Your task to perform on an android device: set default search engine in the chrome app Image 0: 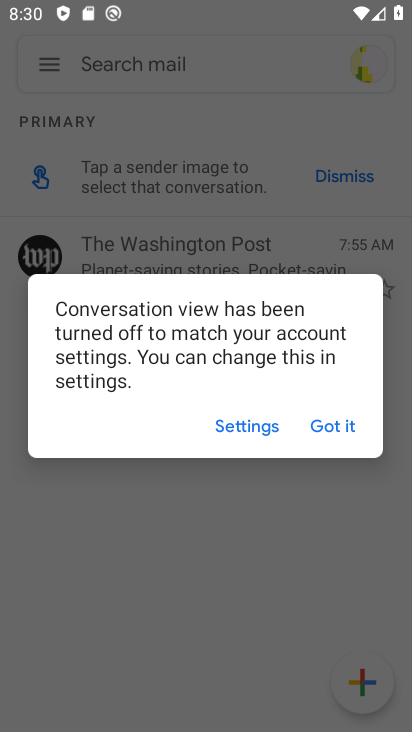
Step 0: press home button
Your task to perform on an android device: set default search engine in the chrome app Image 1: 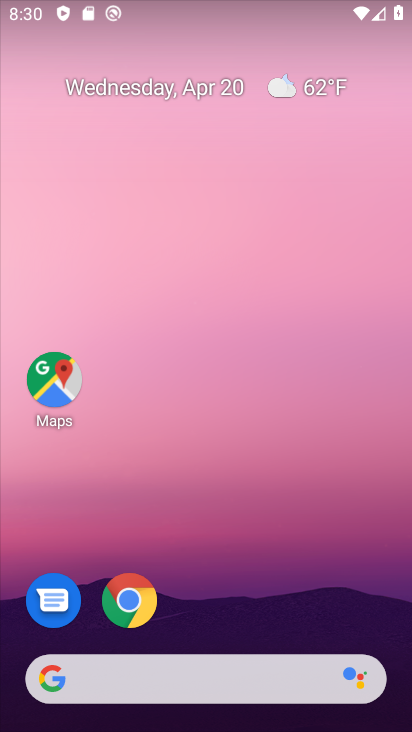
Step 1: click (125, 597)
Your task to perform on an android device: set default search engine in the chrome app Image 2: 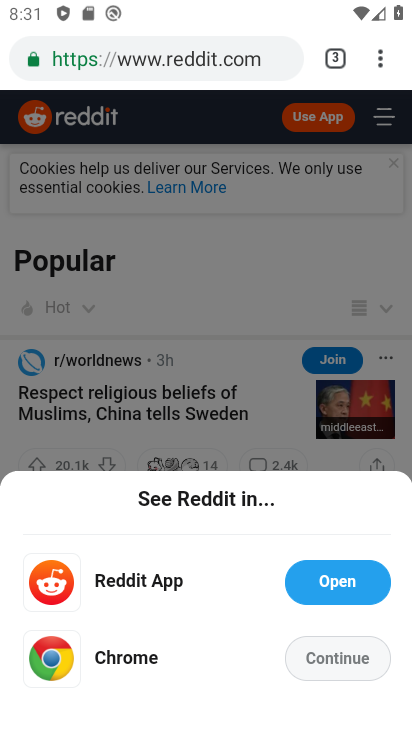
Step 2: click (382, 59)
Your task to perform on an android device: set default search engine in the chrome app Image 3: 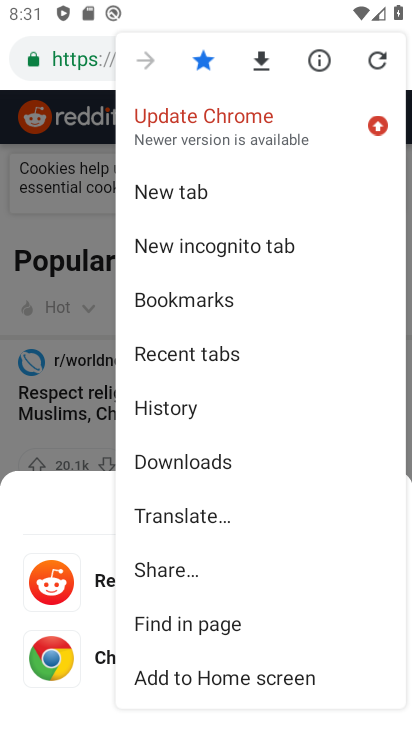
Step 3: drag from (203, 645) to (174, 275)
Your task to perform on an android device: set default search engine in the chrome app Image 4: 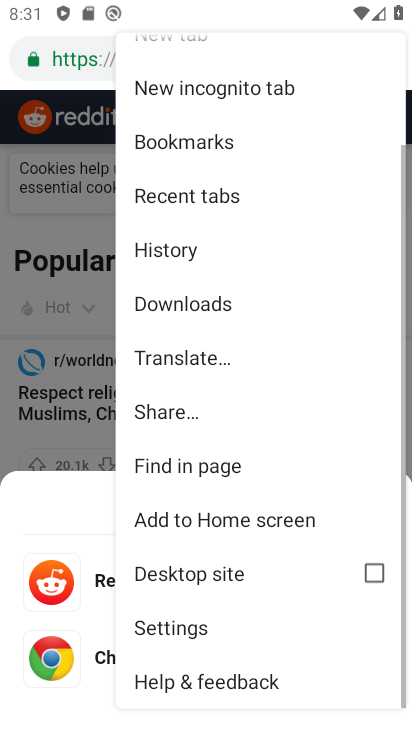
Step 4: click (179, 622)
Your task to perform on an android device: set default search engine in the chrome app Image 5: 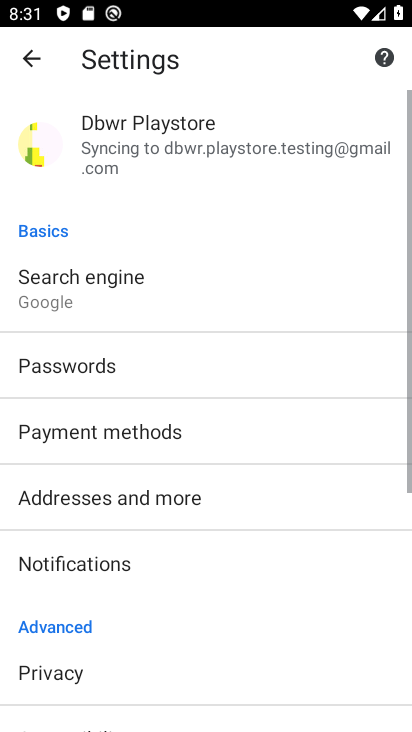
Step 5: drag from (123, 655) to (136, 466)
Your task to perform on an android device: set default search engine in the chrome app Image 6: 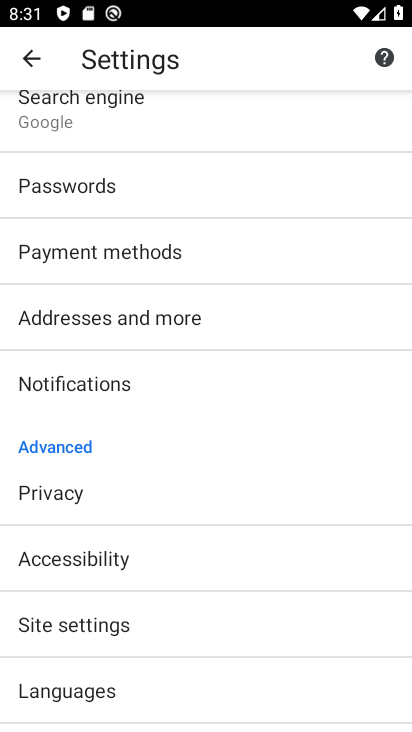
Step 6: click (58, 124)
Your task to perform on an android device: set default search engine in the chrome app Image 7: 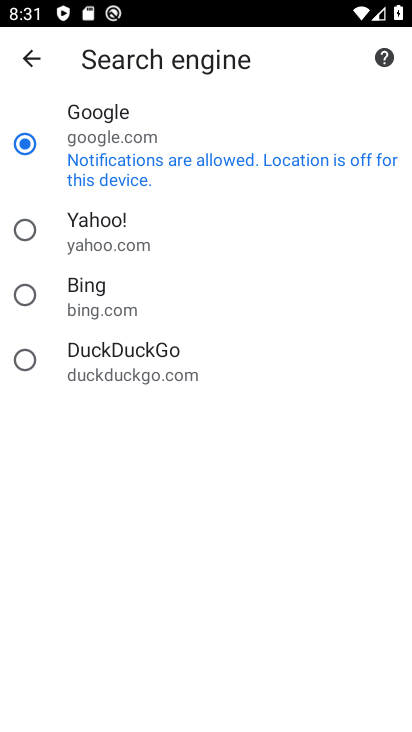
Step 7: click (20, 227)
Your task to perform on an android device: set default search engine in the chrome app Image 8: 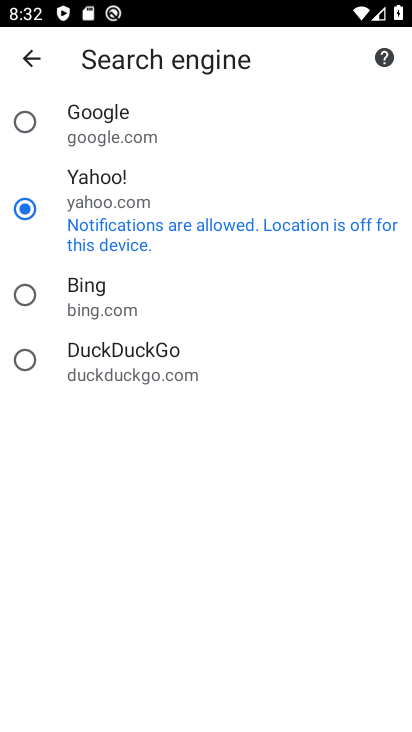
Step 8: task complete